Your task to perform on an android device: See recent photos Image 0: 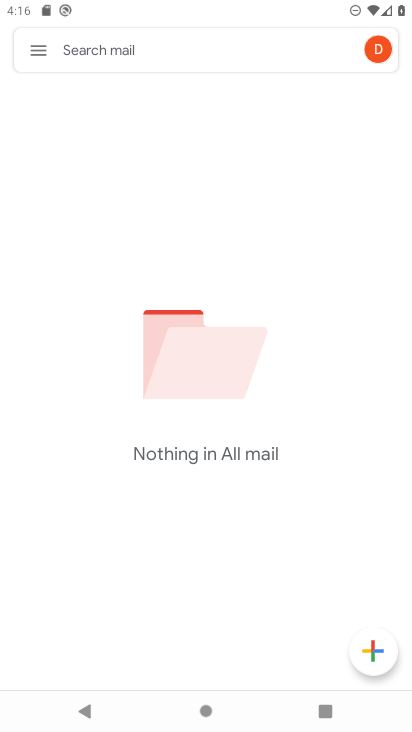
Step 0: press home button
Your task to perform on an android device: See recent photos Image 1: 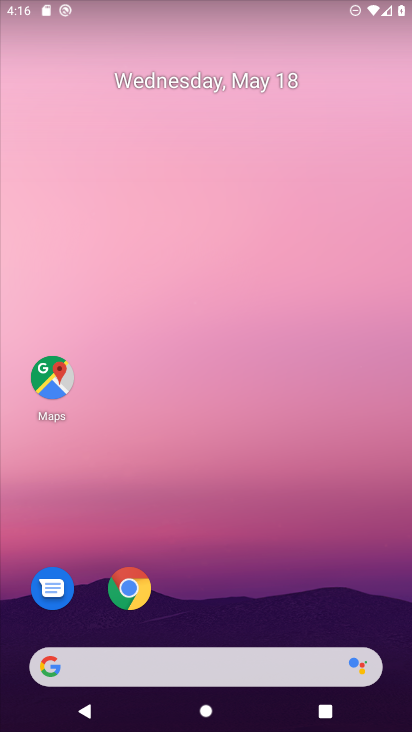
Step 1: drag from (263, 597) to (281, 154)
Your task to perform on an android device: See recent photos Image 2: 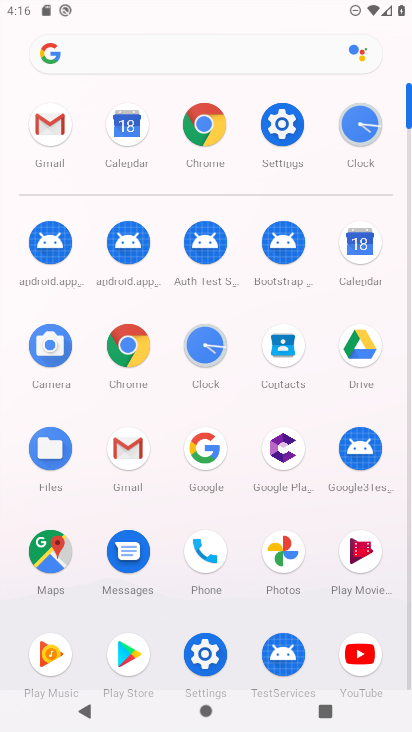
Step 2: click (297, 549)
Your task to perform on an android device: See recent photos Image 3: 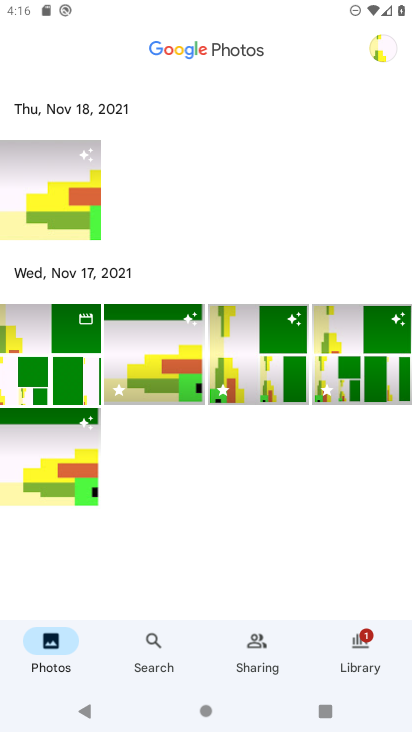
Step 3: task complete